Your task to perform on an android device: Turn off the flashlight Image 0: 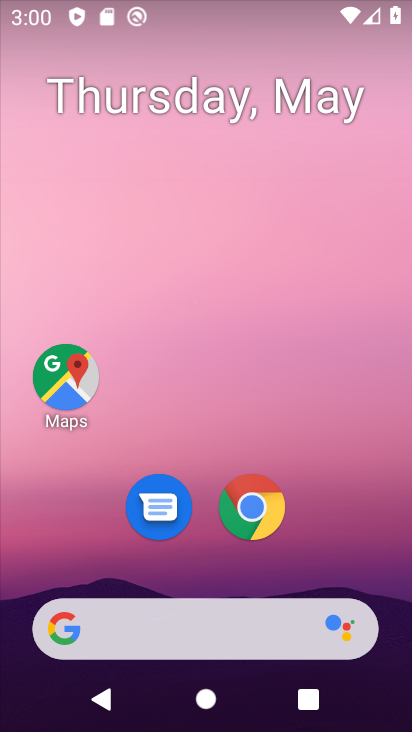
Step 0: drag from (268, 9) to (234, 371)
Your task to perform on an android device: Turn off the flashlight Image 1: 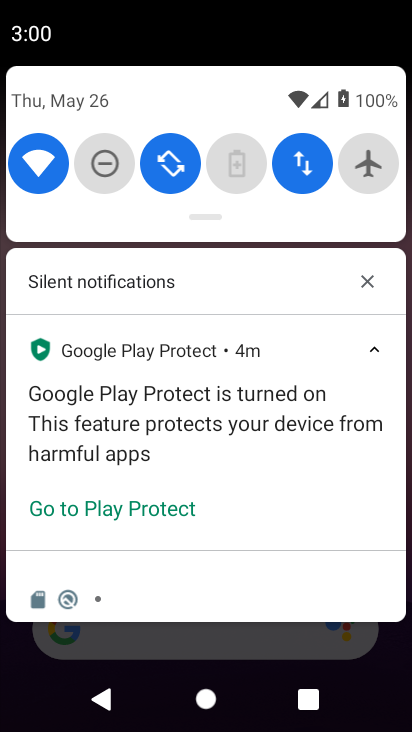
Step 1: task complete